Your task to perform on an android device: Open eBay Image 0: 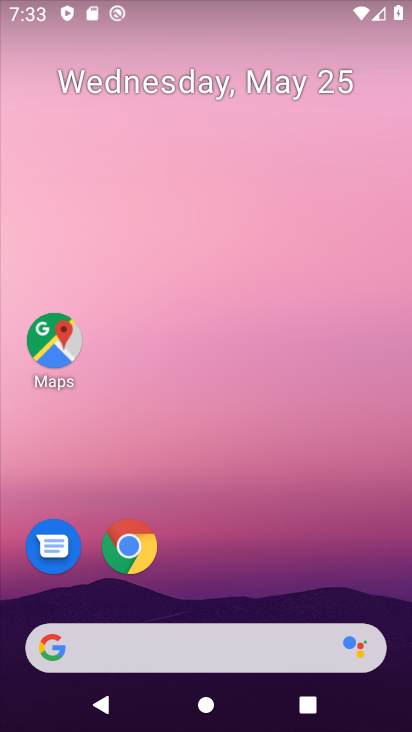
Step 0: drag from (220, 578) to (218, 23)
Your task to perform on an android device: Open eBay Image 1: 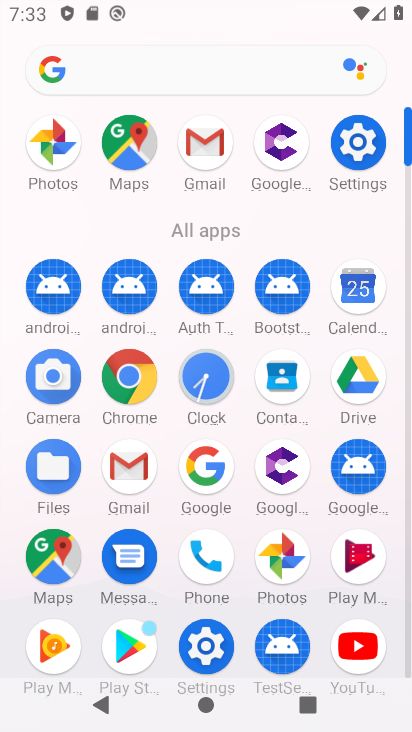
Step 1: click (144, 423)
Your task to perform on an android device: Open eBay Image 2: 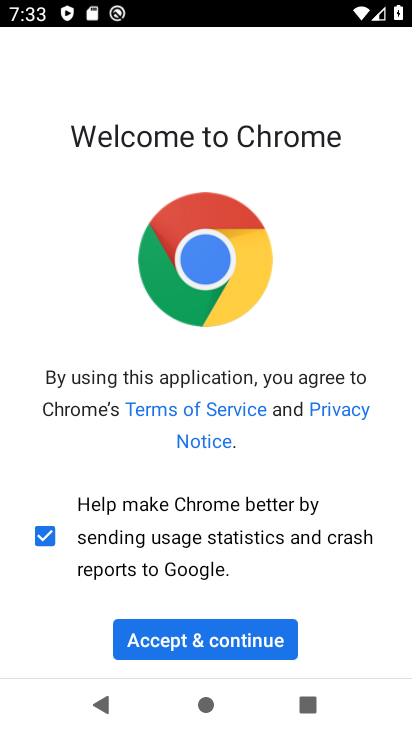
Step 2: click (177, 636)
Your task to perform on an android device: Open eBay Image 3: 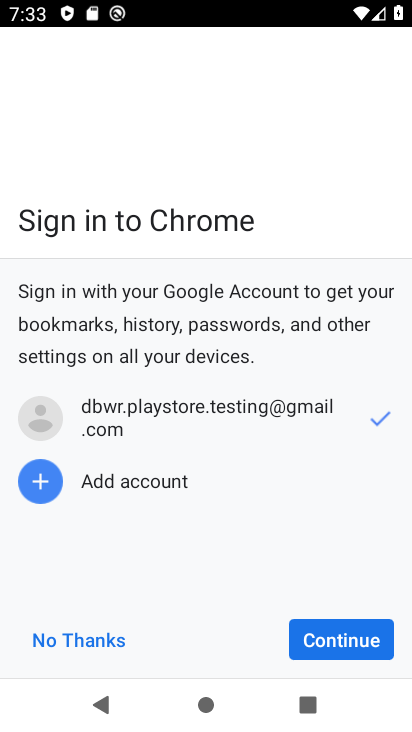
Step 3: click (324, 651)
Your task to perform on an android device: Open eBay Image 4: 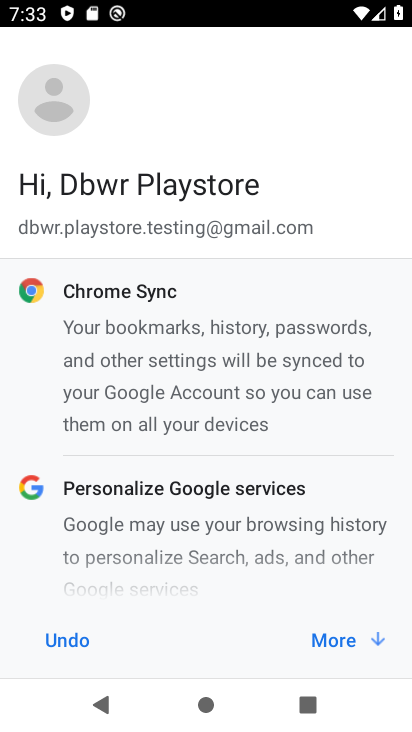
Step 4: click (326, 634)
Your task to perform on an android device: Open eBay Image 5: 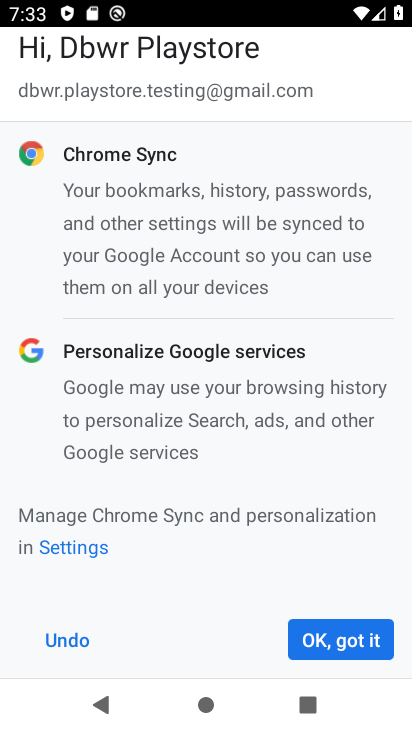
Step 5: click (326, 634)
Your task to perform on an android device: Open eBay Image 6: 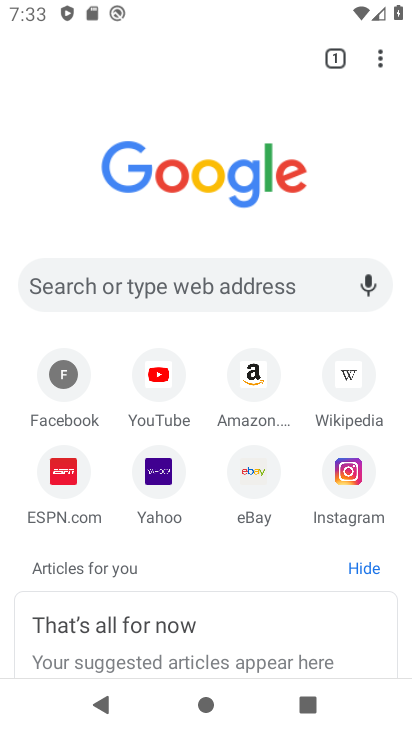
Step 6: click (233, 502)
Your task to perform on an android device: Open eBay Image 7: 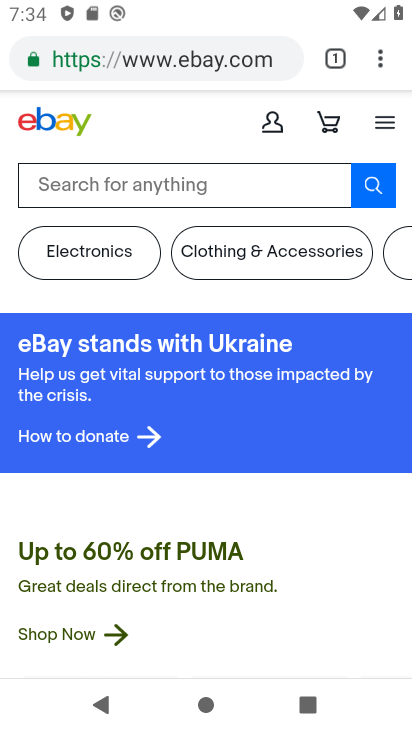
Step 7: task complete